Your task to perform on an android device: toggle priority inbox in the gmail app Image 0: 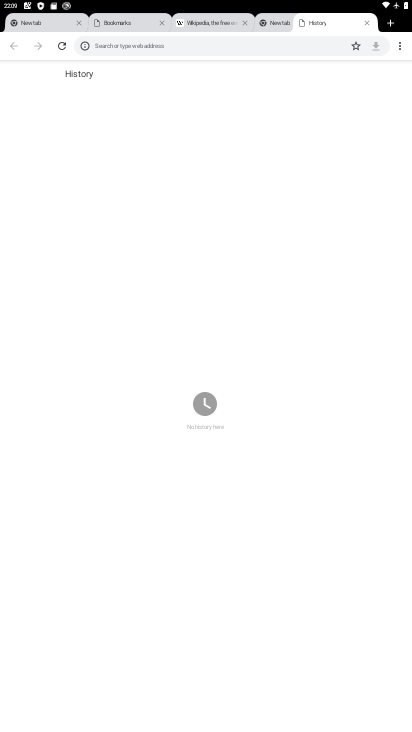
Step 0: press home button
Your task to perform on an android device: toggle priority inbox in the gmail app Image 1: 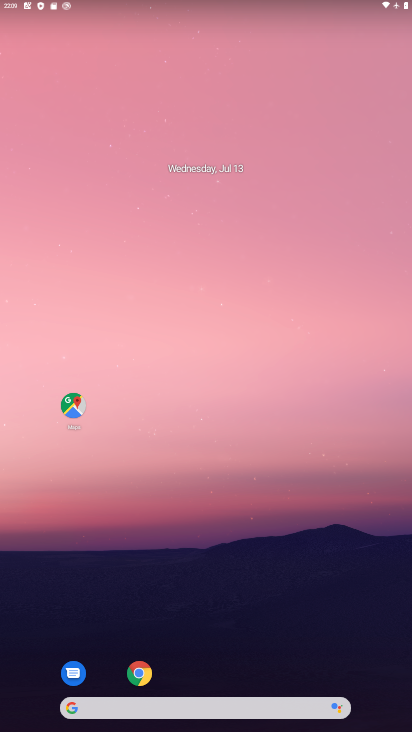
Step 1: drag from (196, 656) to (235, 112)
Your task to perform on an android device: toggle priority inbox in the gmail app Image 2: 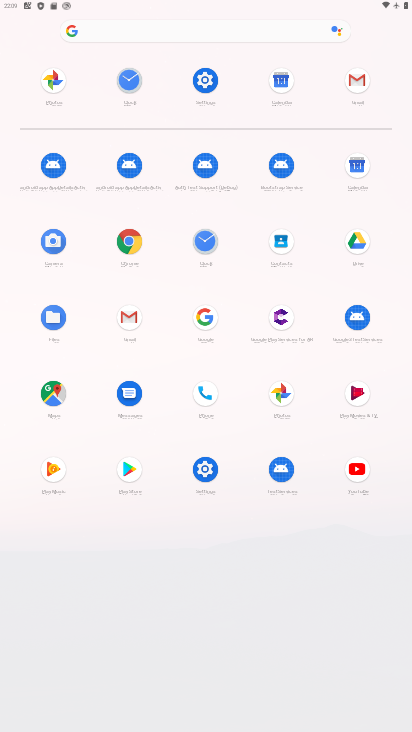
Step 2: click (136, 324)
Your task to perform on an android device: toggle priority inbox in the gmail app Image 3: 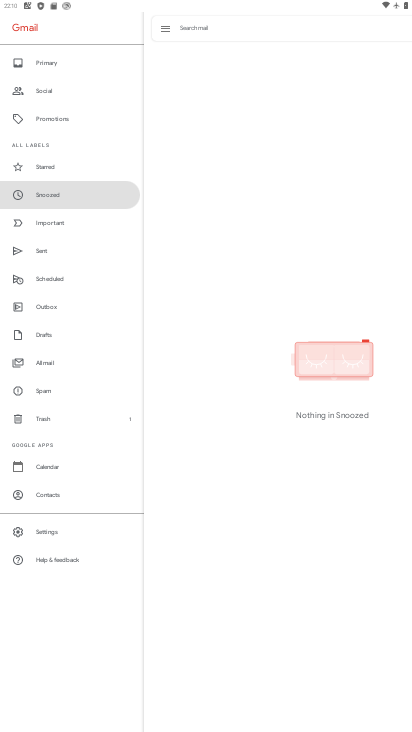
Step 3: click (48, 528)
Your task to perform on an android device: toggle priority inbox in the gmail app Image 4: 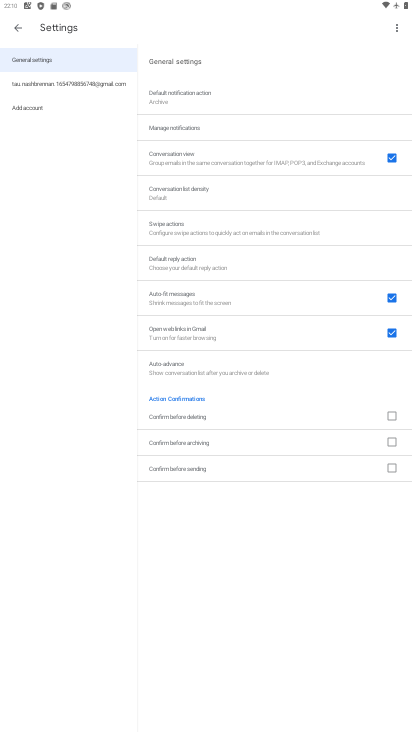
Step 4: click (66, 86)
Your task to perform on an android device: toggle priority inbox in the gmail app Image 5: 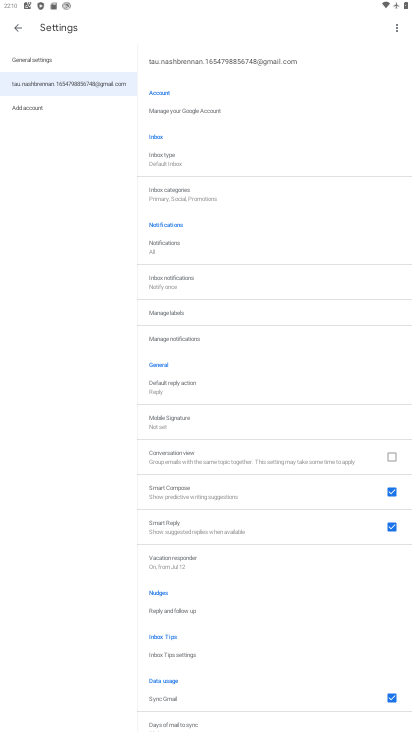
Step 5: click (206, 161)
Your task to perform on an android device: toggle priority inbox in the gmail app Image 6: 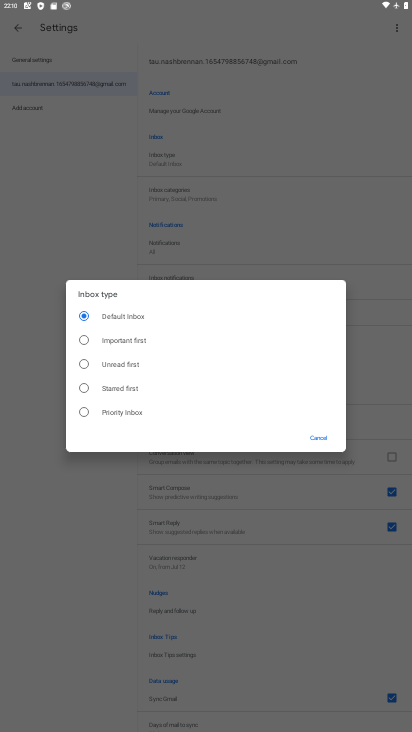
Step 6: click (105, 412)
Your task to perform on an android device: toggle priority inbox in the gmail app Image 7: 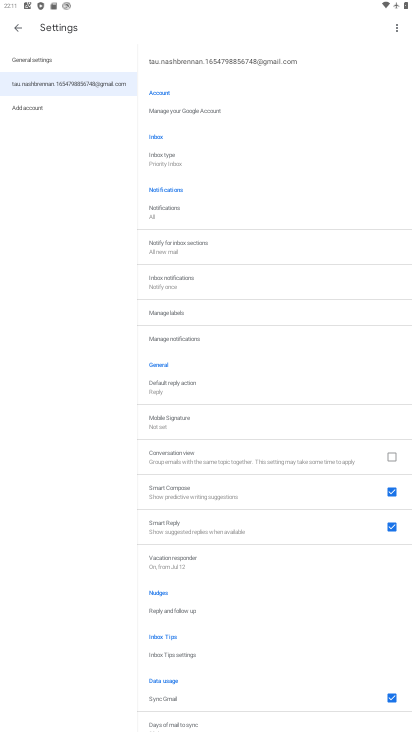
Step 7: task complete